Your task to perform on an android device: visit the assistant section in the google photos Image 0: 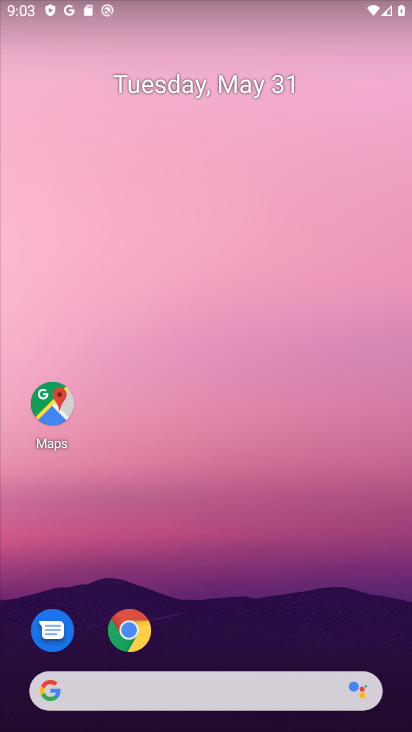
Step 0: drag from (125, 726) to (149, 11)
Your task to perform on an android device: visit the assistant section in the google photos Image 1: 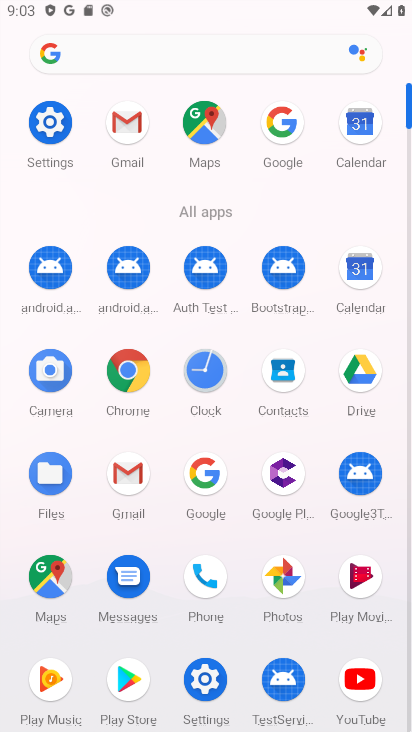
Step 1: click (286, 585)
Your task to perform on an android device: visit the assistant section in the google photos Image 2: 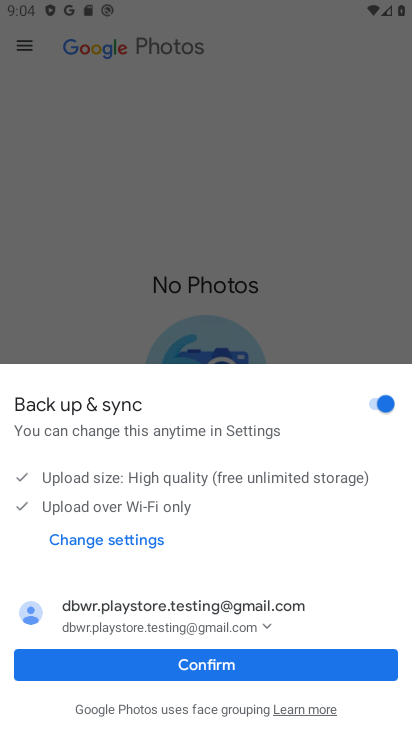
Step 2: click (307, 672)
Your task to perform on an android device: visit the assistant section in the google photos Image 3: 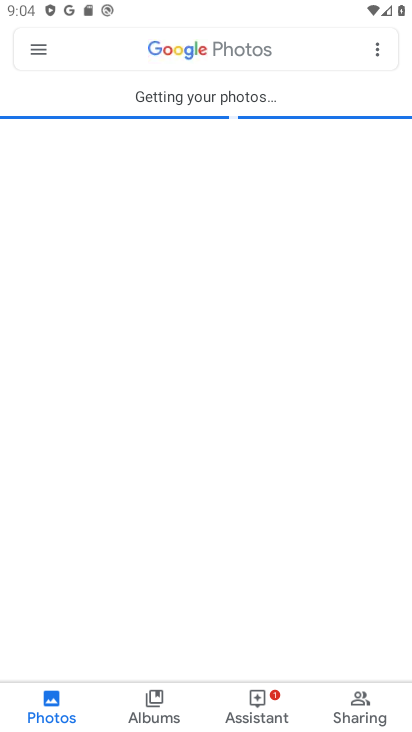
Step 3: click (274, 714)
Your task to perform on an android device: visit the assistant section in the google photos Image 4: 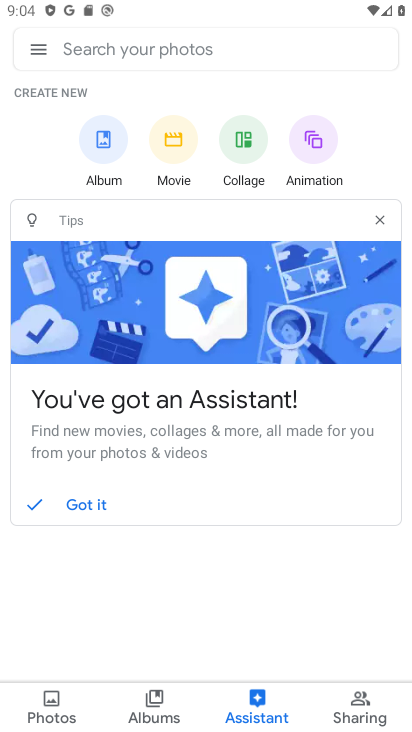
Step 4: task complete